Your task to perform on an android device: find snoozed emails in the gmail app Image 0: 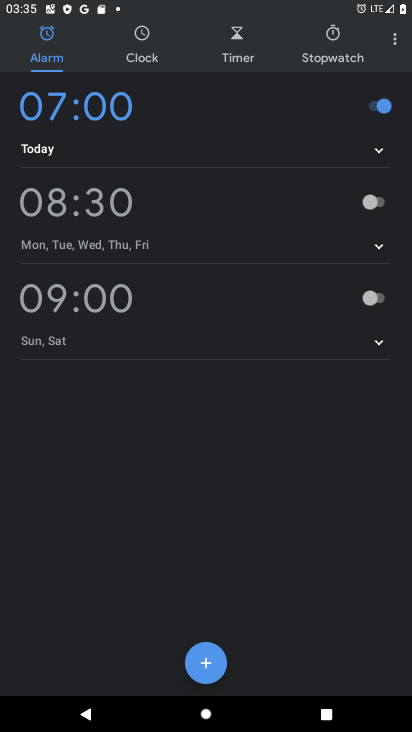
Step 0: press home button
Your task to perform on an android device: find snoozed emails in the gmail app Image 1: 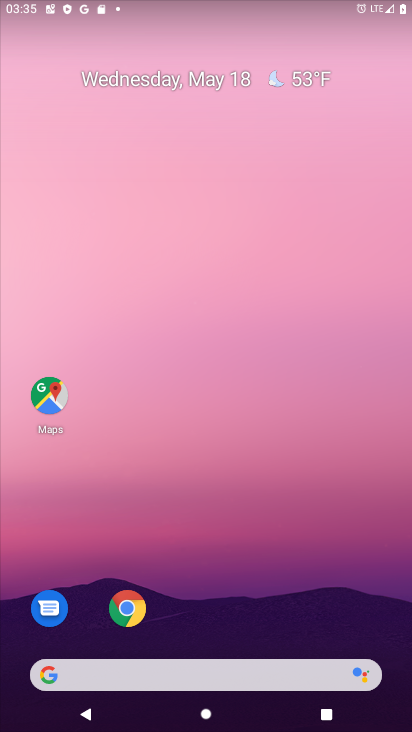
Step 1: drag from (287, 640) to (369, 16)
Your task to perform on an android device: find snoozed emails in the gmail app Image 2: 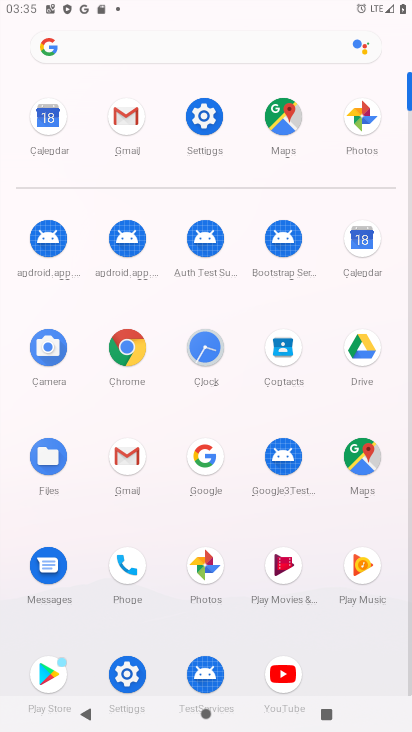
Step 2: click (112, 105)
Your task to perform on an android device: find snoozed emails in the gmail app Image 3: 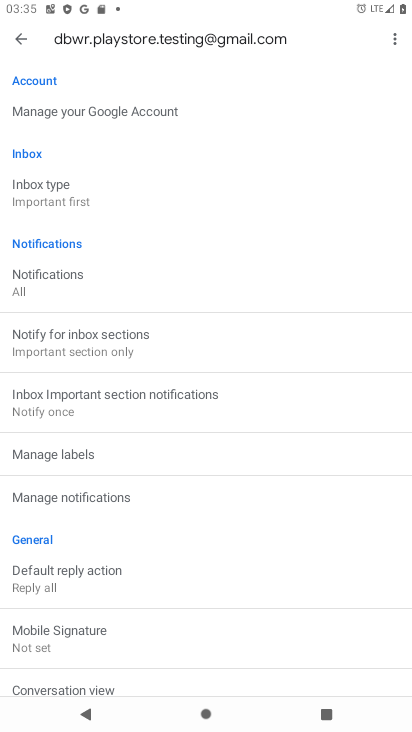
Step 3: click (22, 46)
Your task to perform on an android device: find snoozed emails in the gmail app Image 4: 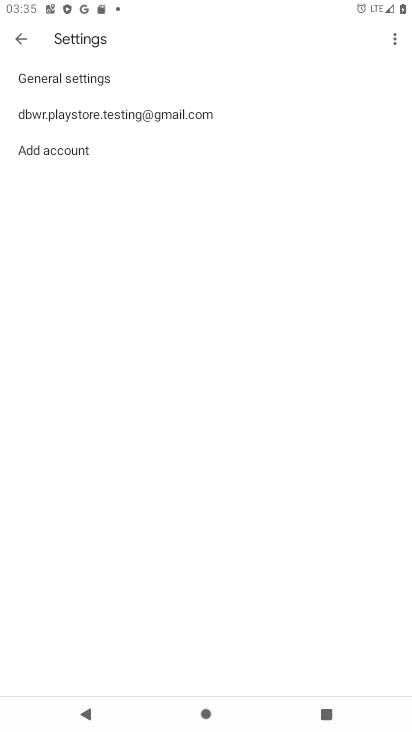
Step 4: click (22, 46)
Your task to perform on an android device: find snoozed emails in the gmail app Image 5: 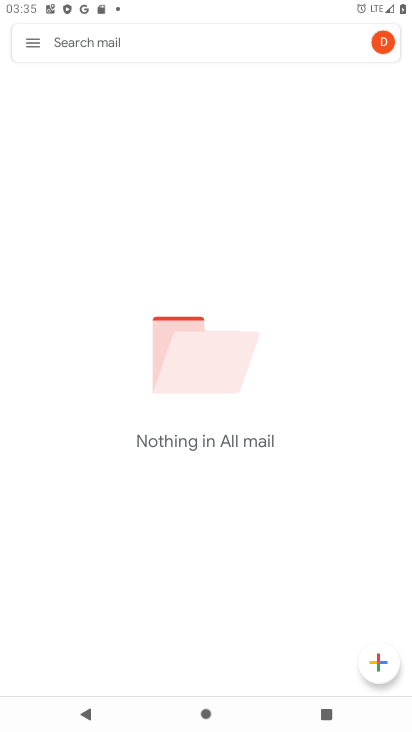
Step 5: click (175, 438)
Your task to perform on an android device: find snoozed emails in the gmail app Image 6: 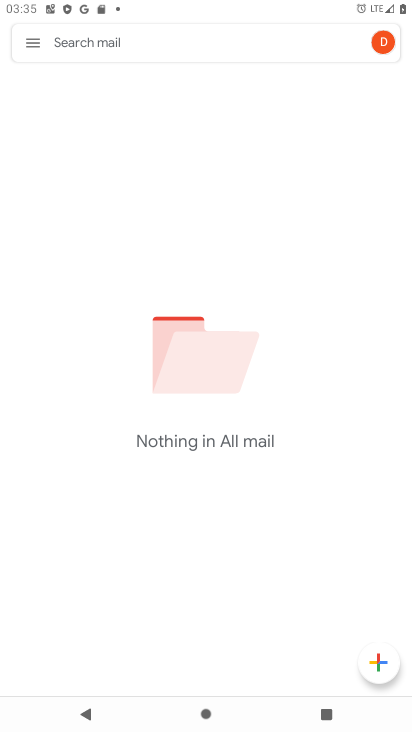
Step 6: click (21, 36)
Your task to perform on an android device: find snoozed emails in the gmail app Image 7: 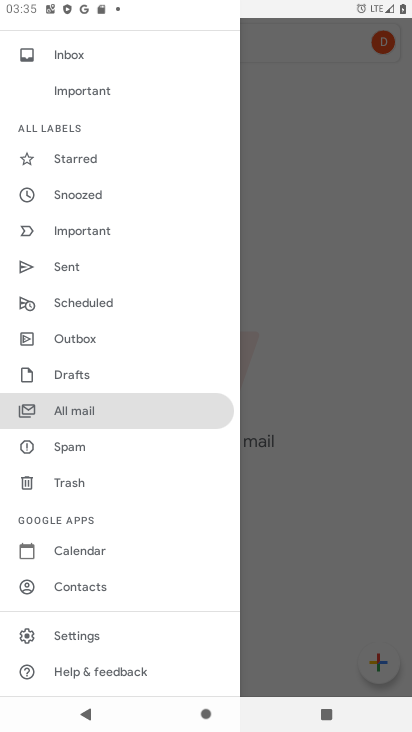
Step 7: click (72, 192)
Your task to perform on an android device: find snoozed emails in the gmail app Image 8: 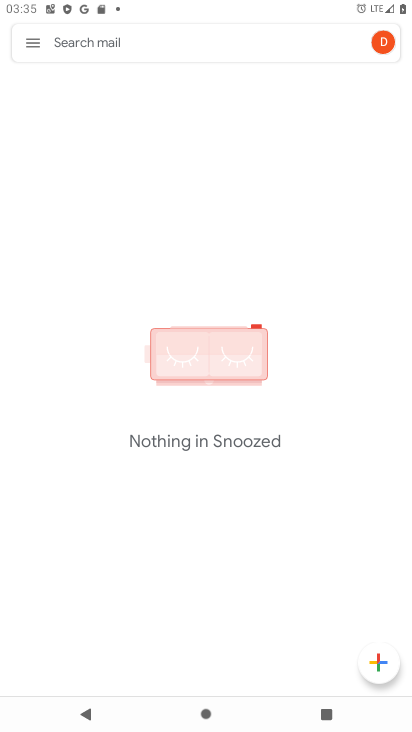
Step 8: task complete